Your task to perform on an android device: Go to calendar. Show me events next week Image 0: 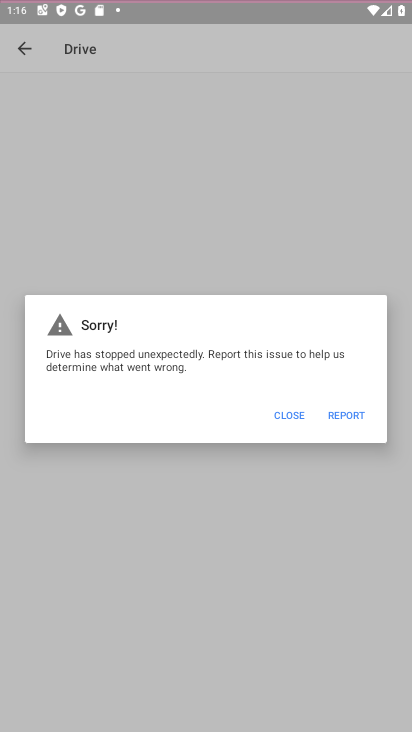
Step 0: press home button
Your task to perform on an android device: Go to calendar. Show me events next week Image 1: 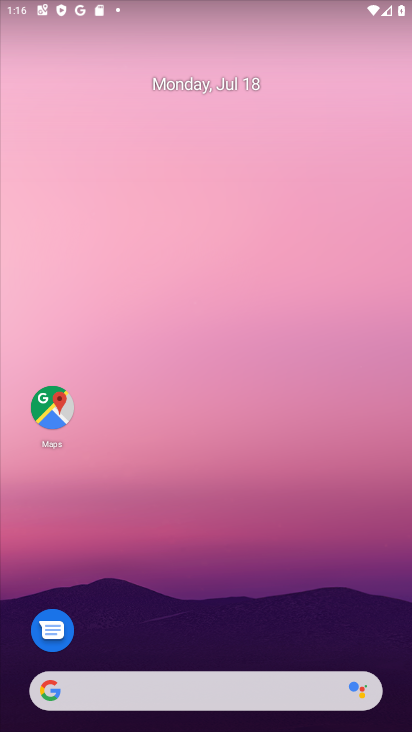
Step 1: drag from (315, 630) to (319, 3)
Your task to perform on an android device: Go to calendar. Show me events next week Image 2: 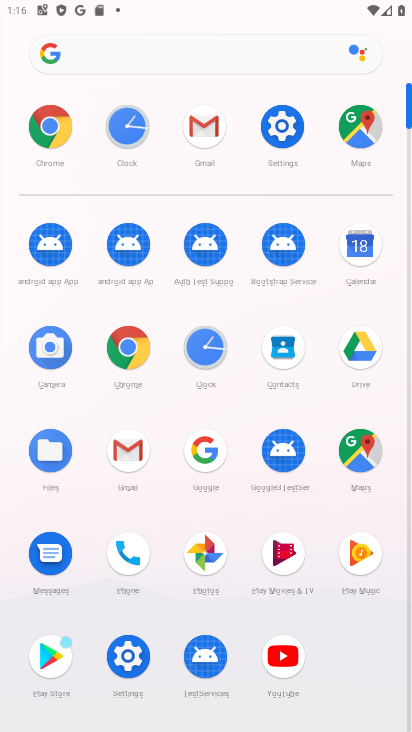
Step 2: click (360, 249)
Your task to perform on an android device: Go to calendar. Show me events next week Image 3: 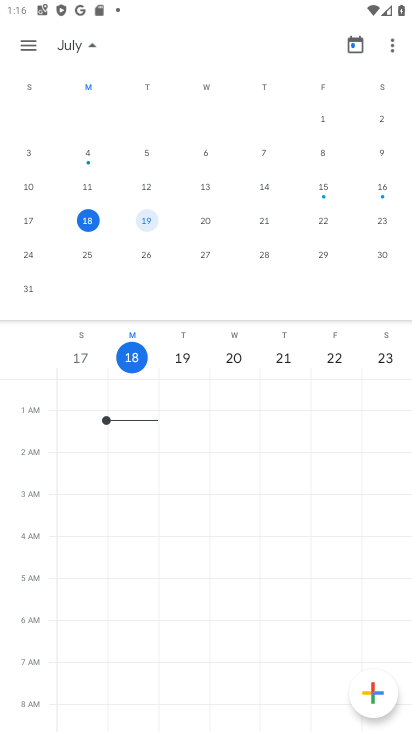
Step 3: click (371, 260)
Your task to perform on an android device: Go to calendar. Show me events next week Image 4: 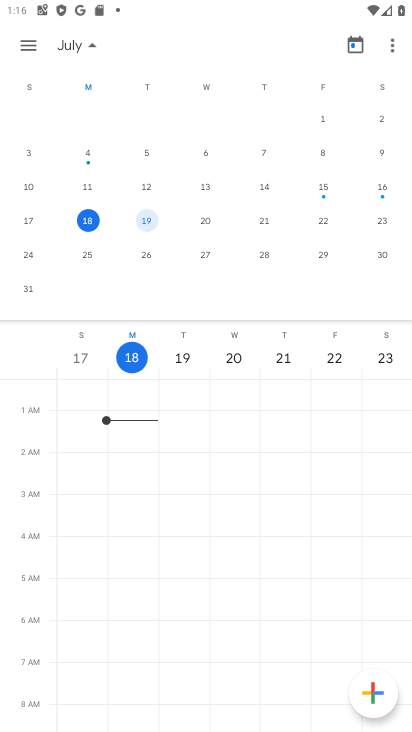
Step 4: click (209, 258)
Your task to perform on an android device: Go to calendar. Show me events next week Image 5: 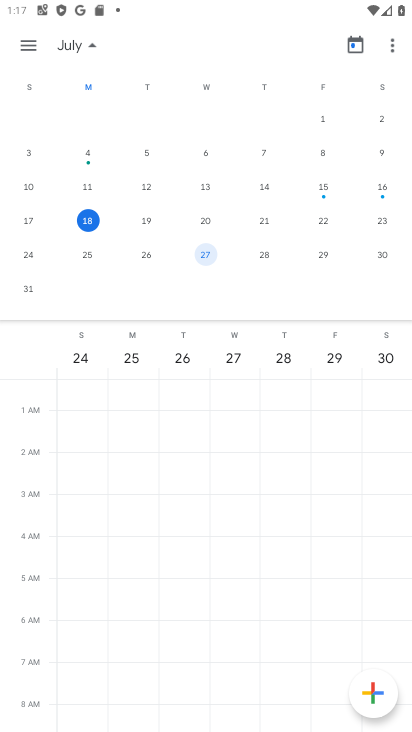
Step 5: task complete